Your task to perform on an android device: Go to eBay Image 0: 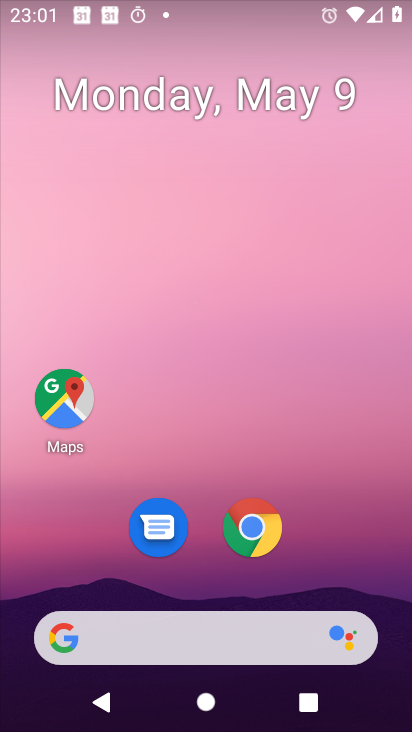
Step 0: drag from (200, 566) to (243, 75)
Your task to perform on an android device: Go to eBay Image 1: 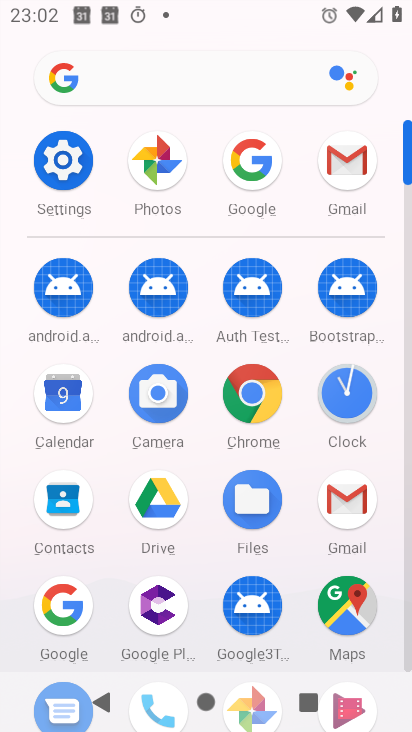
Step 1: click (246, 170)
Your task to perform on an android device: Go to eBay Image 2: 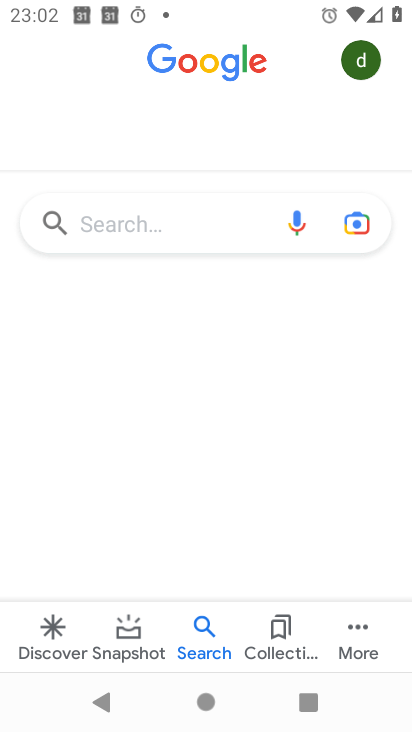
Step 2: click (124, 223)
Your task to perform on an android device: Go to eBay Image 3: 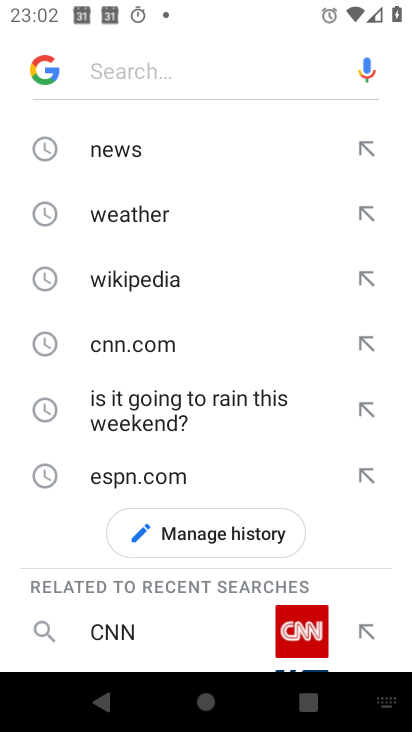
Step 3: drag from (174, 466) to (184, 162)
Your task to perform on an android device: Go to eBay Image 4: 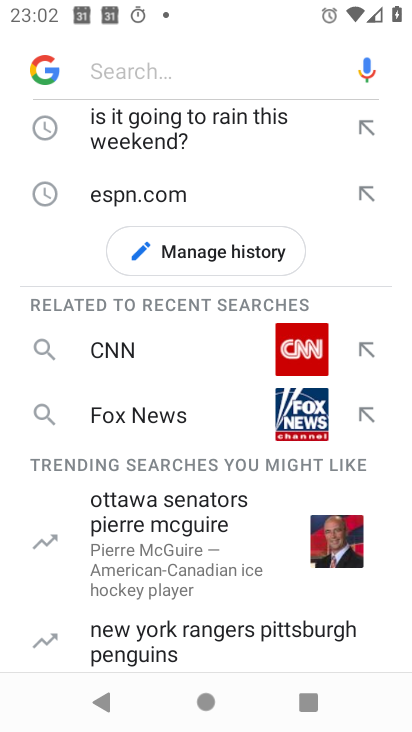
Step 4: click (184, 61)
Your task to perform on an android device: Go to eBay Image 5: 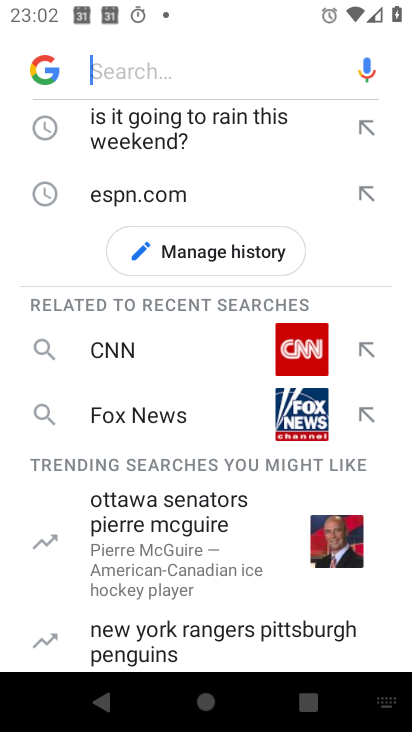
Step 5: type "ebay"
Your task to perform on an android device: Go to eBay Image 6: 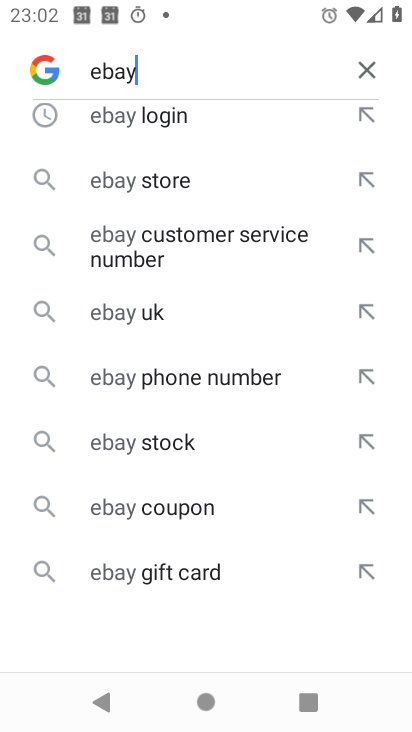
Step 6: click (184, 72)
Your task to perform on an android device: Go to eBay Image 7: 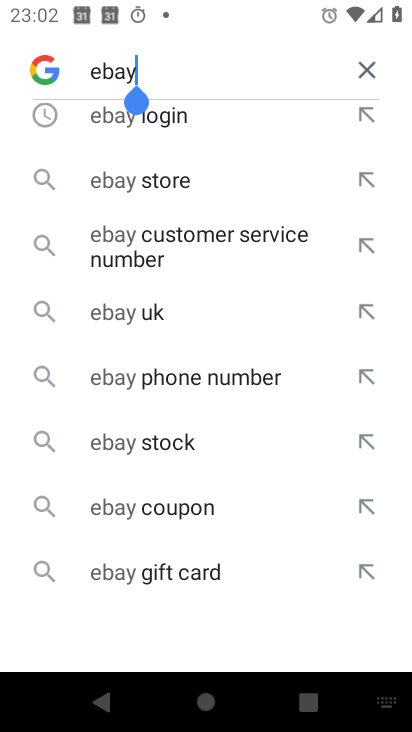
Step 7: click (192, 180)
Your task to perform on an android device: Go to eBay Image 8: 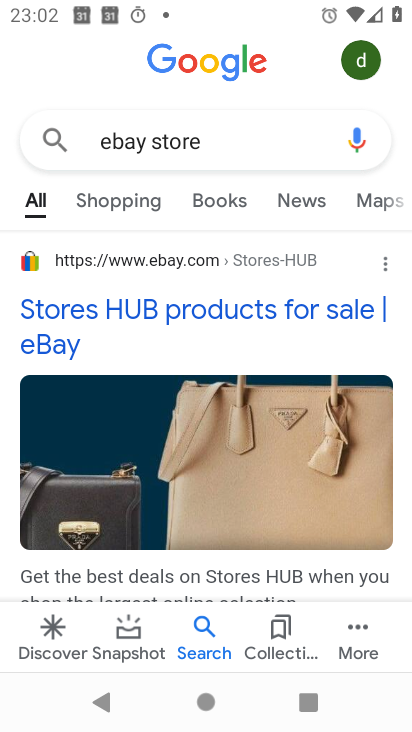
Step 8: task complete